Your task to perform on an android device: check storage Image 0: 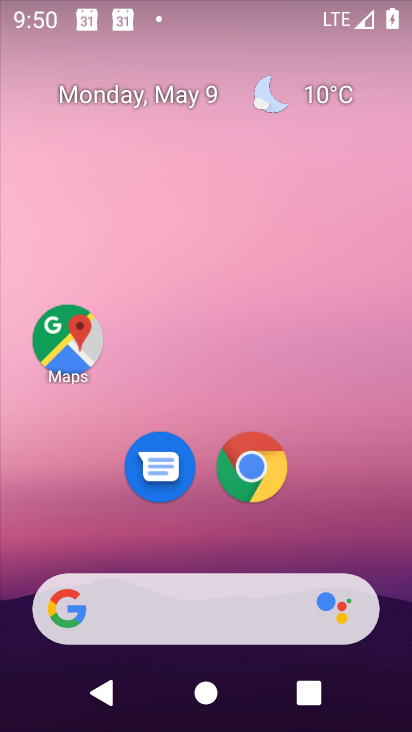
Step 0: drag from (349, 540) to (303, 13)
Your task to perform on an android device: check storage Image 1: 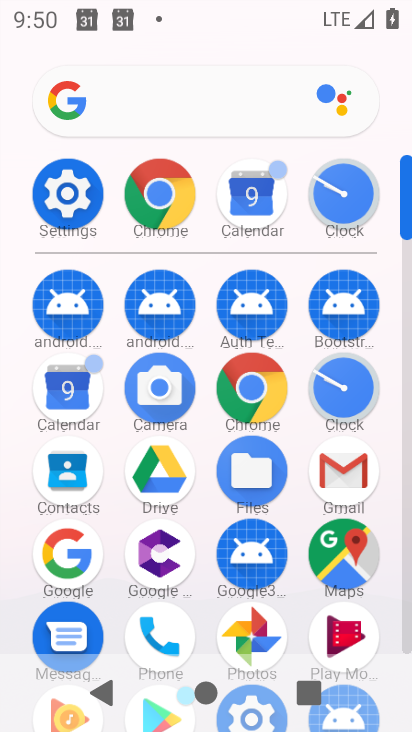
Step 1: click (64, 207)
Your task to perform on an android device: check storage Image 2: 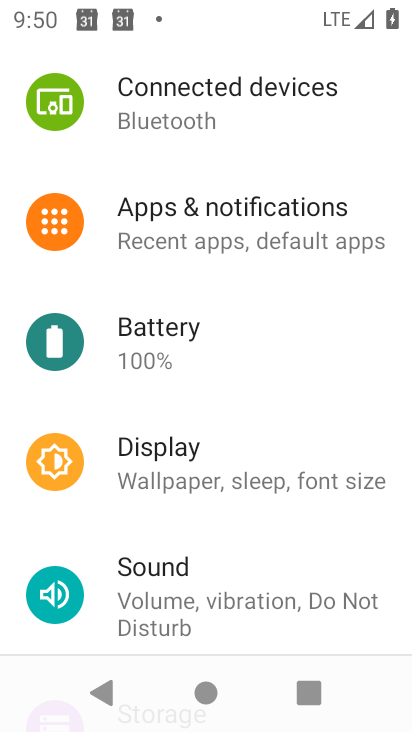
Step 2: drag from (226, 529) to (218, 126)
Your task to perform on an android device: check storage Image 3: 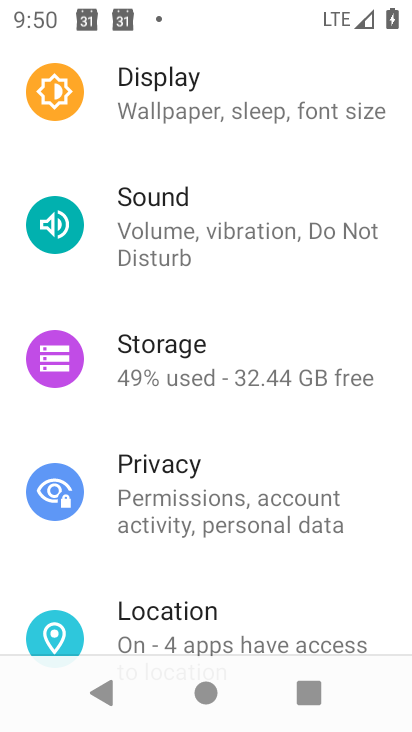
Step 3: click (168, 383)
Your task to perform on an android device: check storage Image 4: 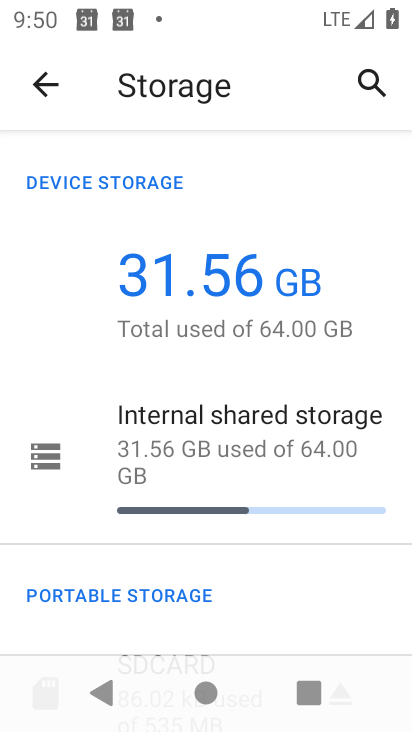
Step 4: click (323, 471)
Your task to perform on an android device: check storage Image 5: 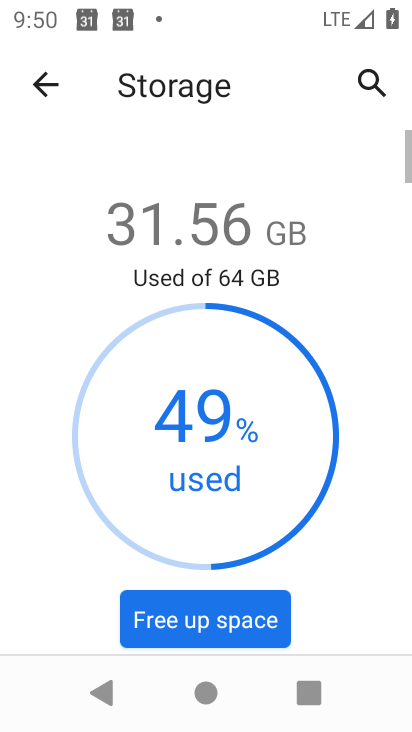
Step 5: task complete